Your task to perform on an android device: Open the map Image 0: 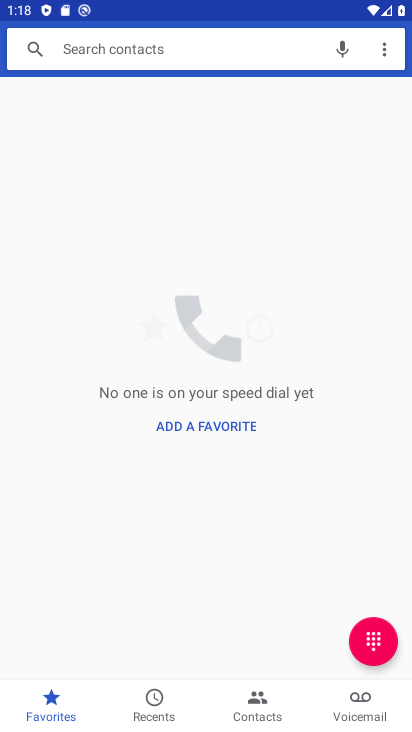
Step 0: press back button
Your task to perform on an android device: Open the map Image 1: 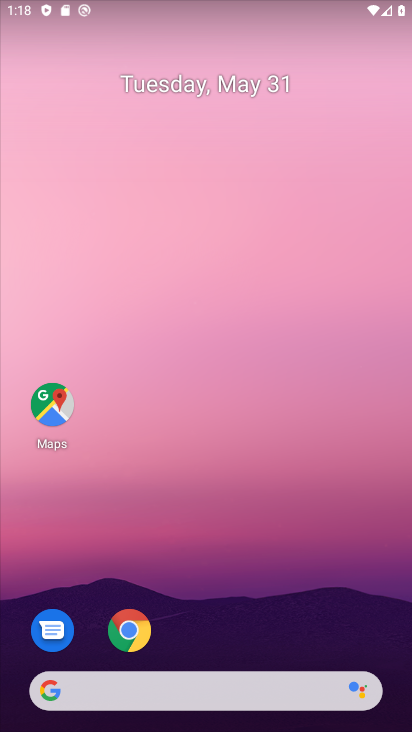
Step 1: drag from (260, 611) to (245, 9)
Your task to perform on an android device: Open the map Image 2: 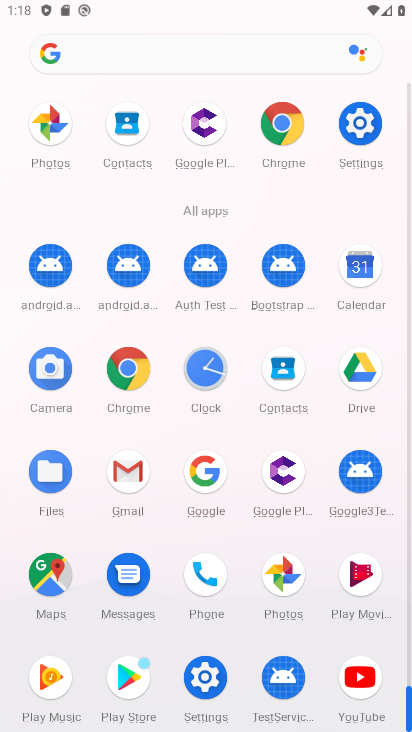
Step 2: click (48, 576)
Your task to perform on an android device: Open the map Image 3: 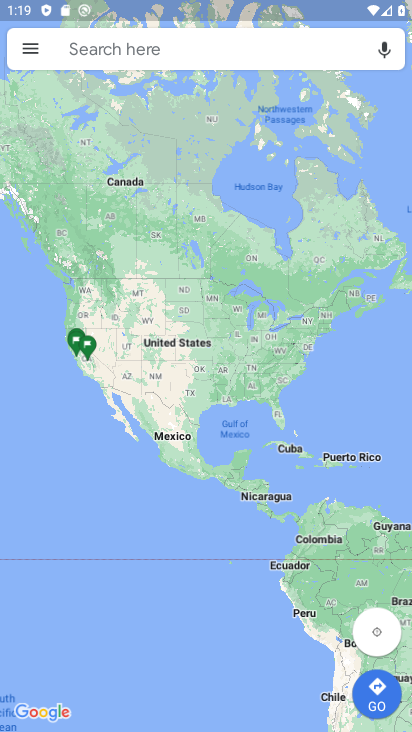
Step 3: task complete